Your task to perform on an android device: toggle improve location accuracy Image 0: 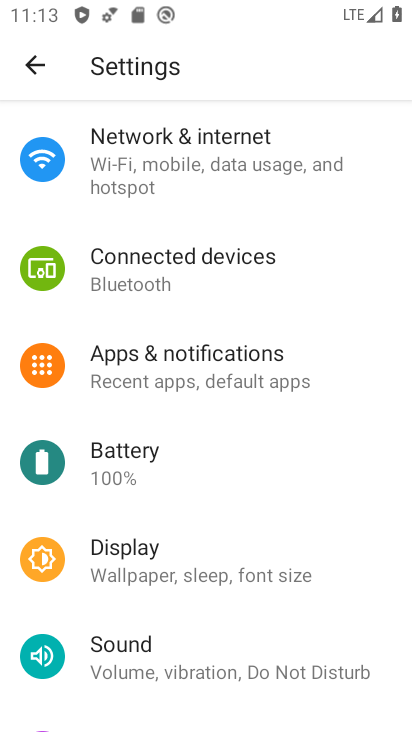
Step 0: drag from (95, 593) to (224, 197)
Your task to perform on an android device: toggle improve location accuracy Image 1: 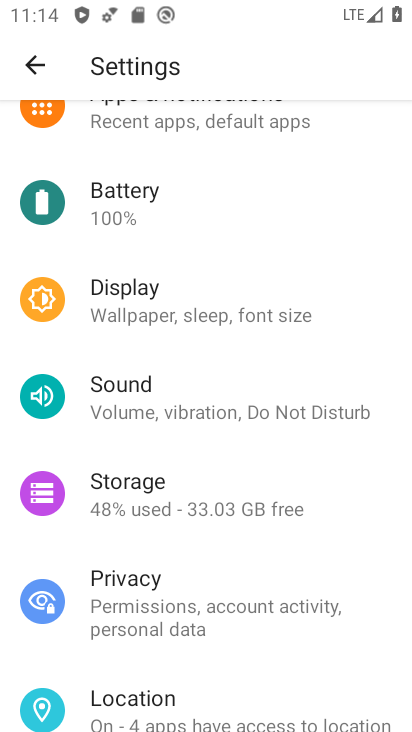
Step 1: click (189, 705)
Your task to perform on an android device: toggle improve location accuracy Image 2: 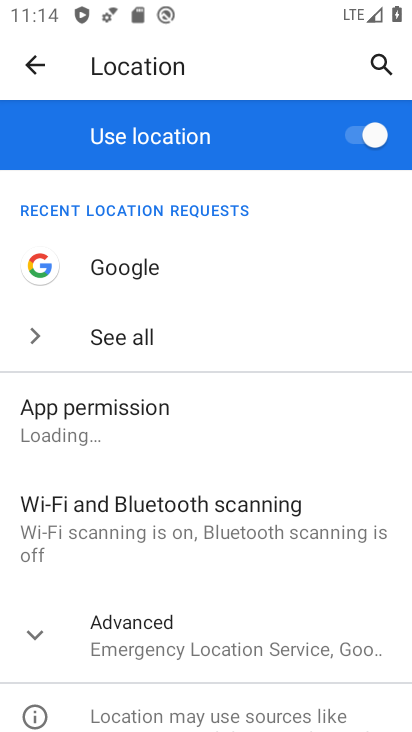
Step 2: click (154, 660)
Your task to perform on an android device: toggle improve location accuracy Image 3: 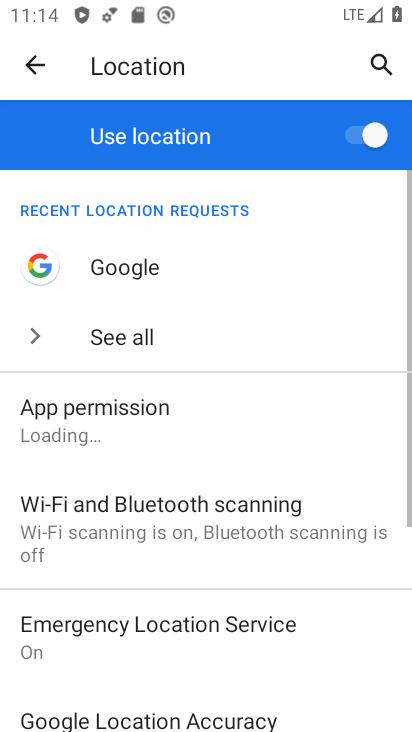
Step 3: drag from (154, 660) to (223, 289)
Your task to perform on an android device: toggle improve location accuracy Image 4: 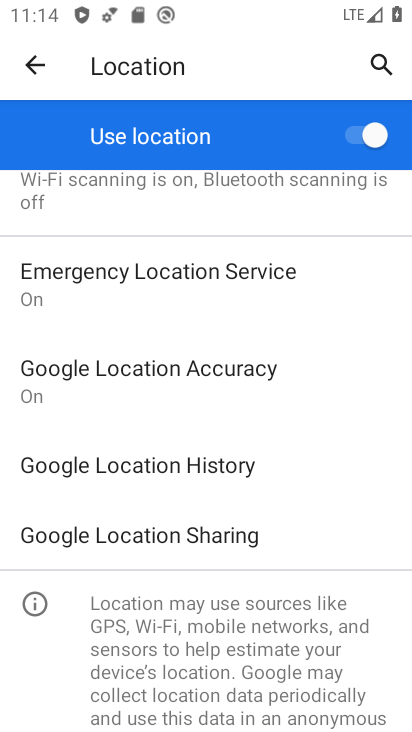
Step 4: click (119, 387)
Your task to perform on an android device: toggle improve location accuracy Image 5: 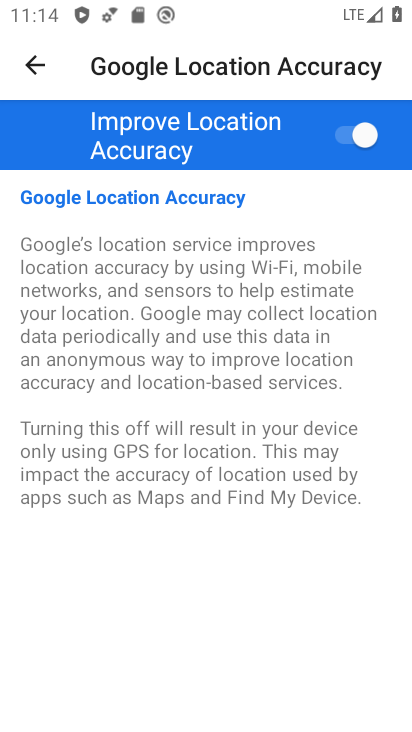
Step 5: click (365, 144)
Your task to perform on an android device: toggle improve location accuracy Image 6: 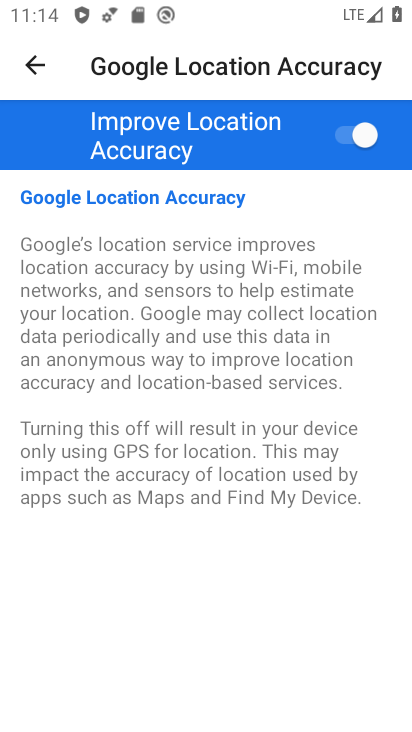
Step 6: click (365, 144)
Your task to perform on an android device: toggle improve location accuracy Image 7: 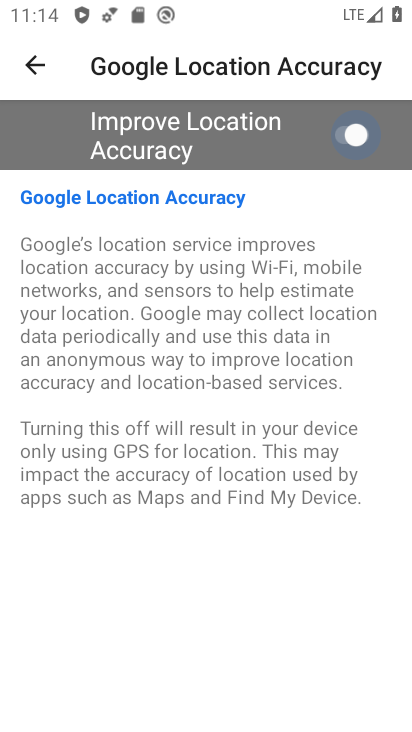
Step 7: click (365, 144)
Your task to perform on an android device: toggle improve location accuracy Image 8: 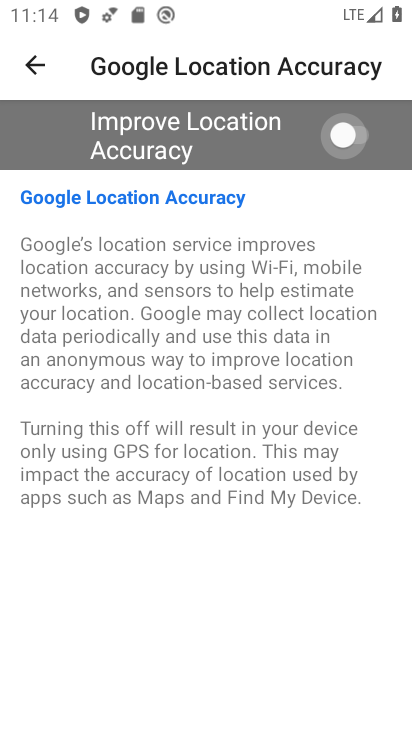
Step 8: click (365, 144)
Your task to perform on an android device: toggle improve location accuracy Image 9: 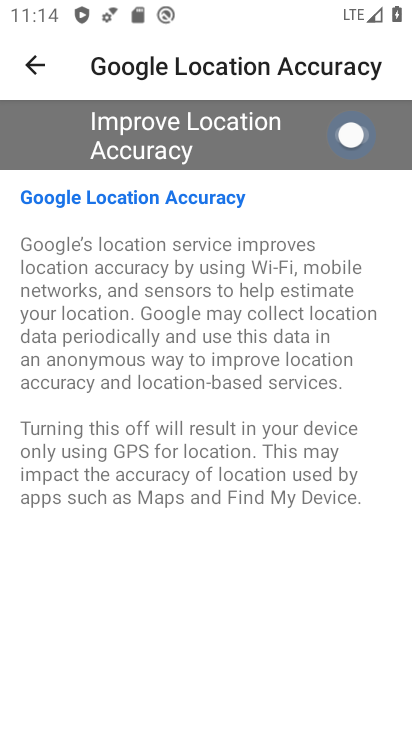
Step 9: click (365, 144)
Your task to perform on an android device: toggle improve location accuracy Image 10: 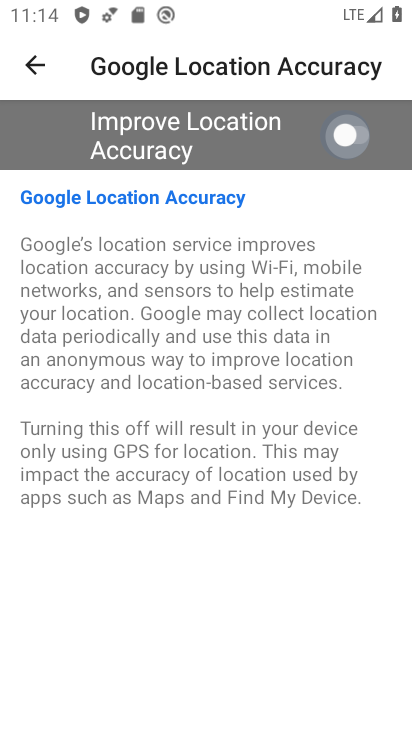
Step 10: click (365, 144)
Your task to perform on an android device: toggle improve location accuracy Image 11: 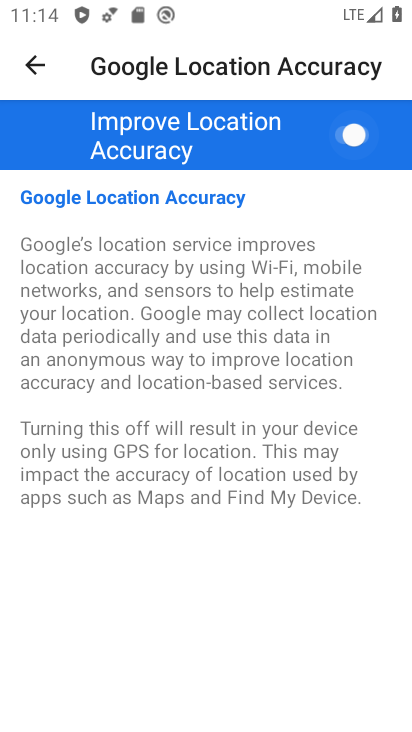
Step 11: click (365, 144)
Your task to perform on an android device: toggle improve location accuracy Image 12: 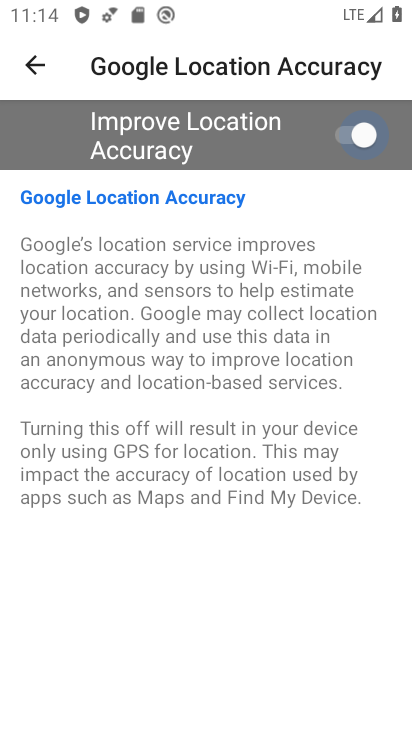
Step 12: click (365, 144)
Your task to perform on an android device: toggle improve location accuracy Image 13: 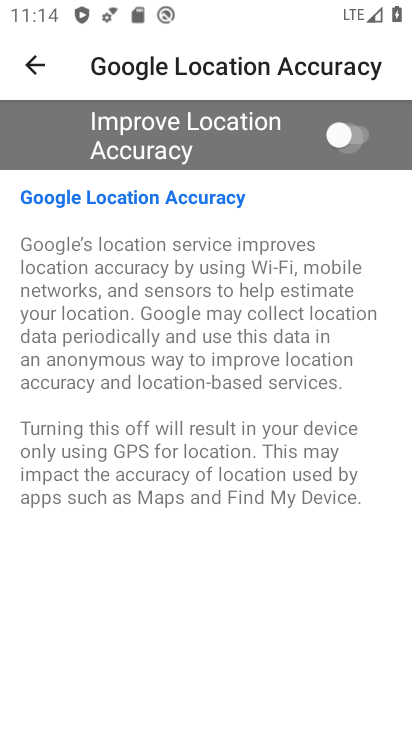
Step 13: click (365, 144)
Your task to perform on an android device: toggle improve location accuracy Image 14: 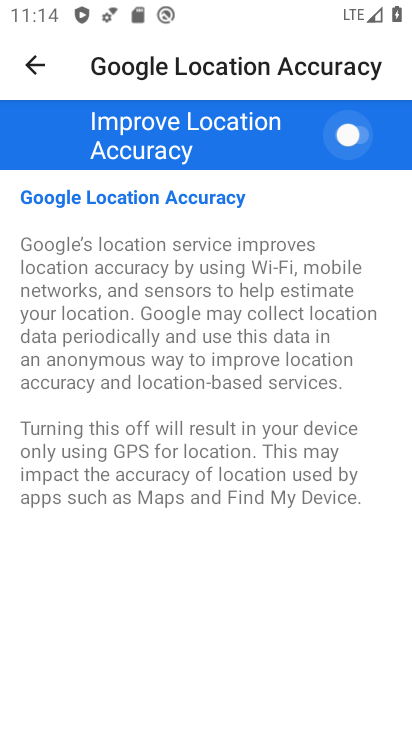
Step 14: click (365, 144)
Your task to perform on an android device: toggle improve location accuracy Image 15: 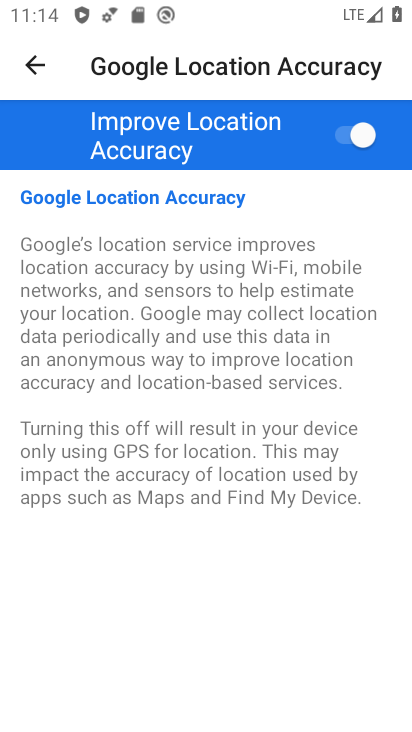
Step 15: click (365, 144)
Your task to perform on an android device: toggle improve location accuracy Image 16: 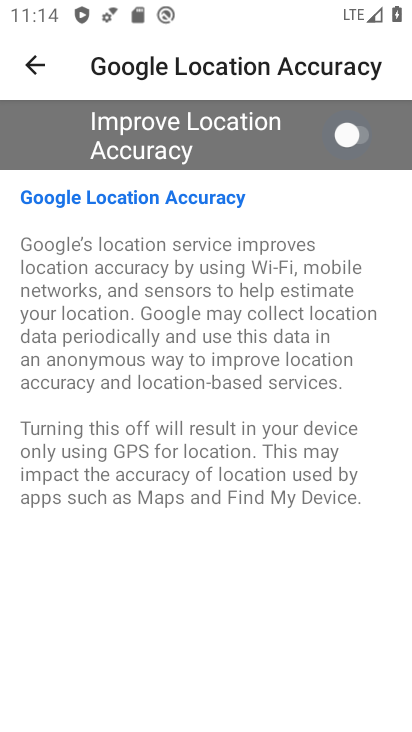
Step 16: click (365, 144)
Your task to perform on an android device: toggle improve location accuracy Image 17: 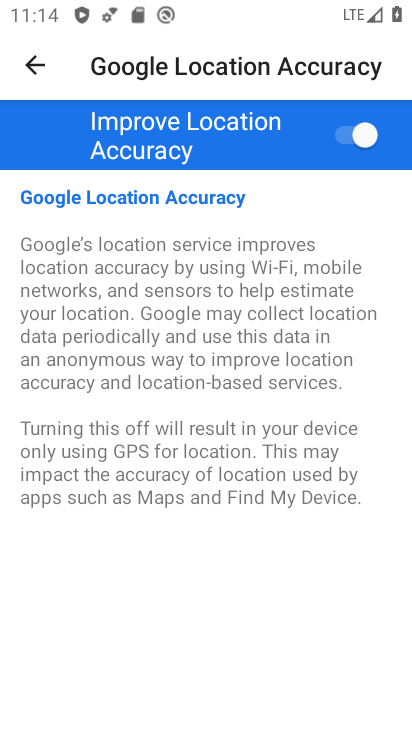
Step 17: click (365, 144)
Your task to perform on an android device: toggle improve location accuracy Image 18: 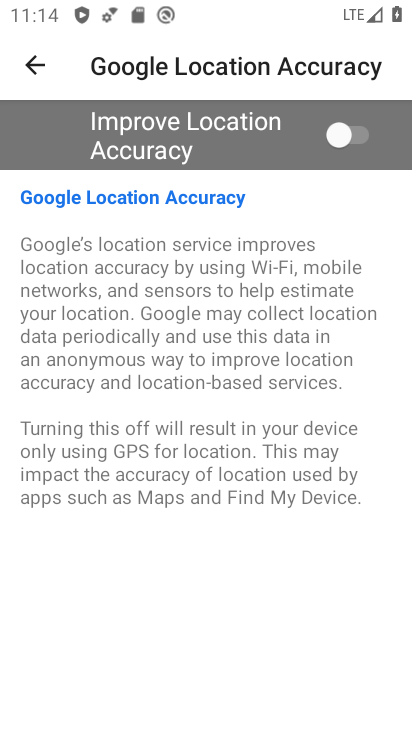
Step 18: task complete